Your task to perform on an android device: Open the stopwatch Image 0: 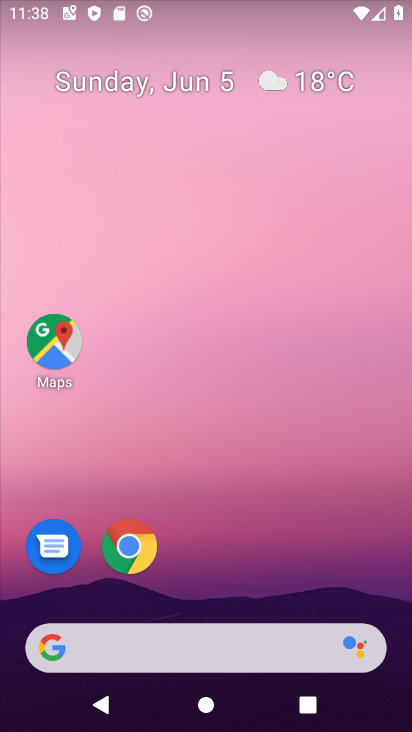
Step 0: drag from (263, 561) to (265, 93)
Your task to perform on an android device: Open the stopwatch Image 1: 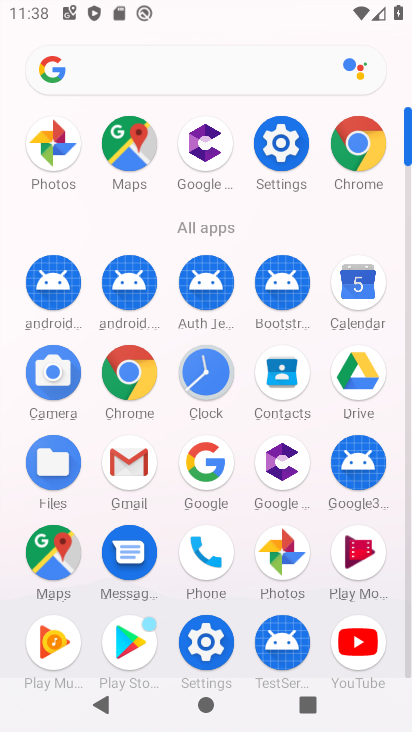
Step 1: click (212, 374)
Your task to perform on an android device: Open the stopwatch Image 2: 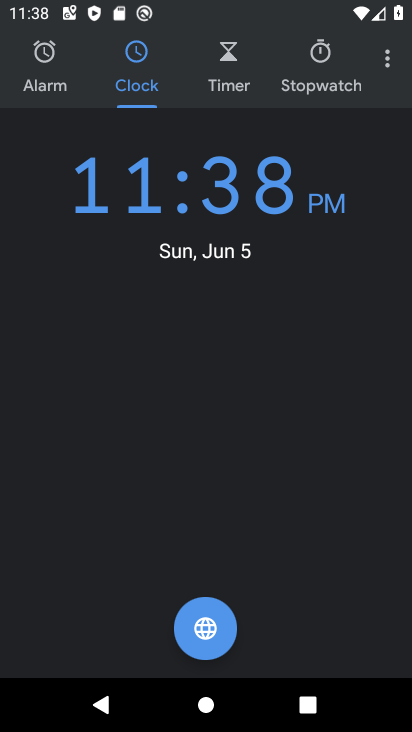
Step 2: click (313, 67)
Your task to perform on an android device: Open the stopwatch Image 3: 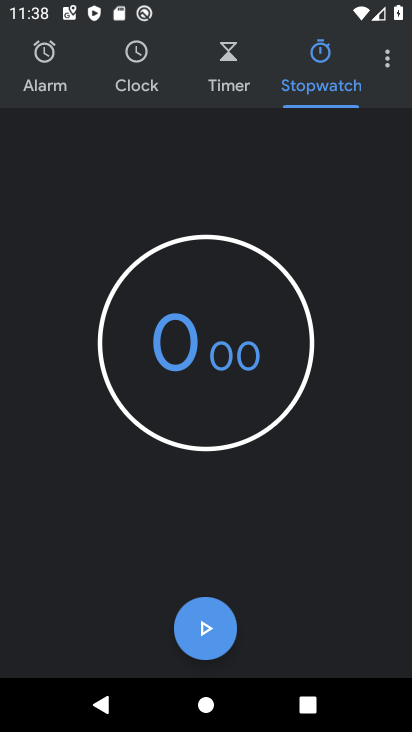
Step 3: task complete